Your task to perform on an android device: Show me productivity apps on the Play Store Image 0: 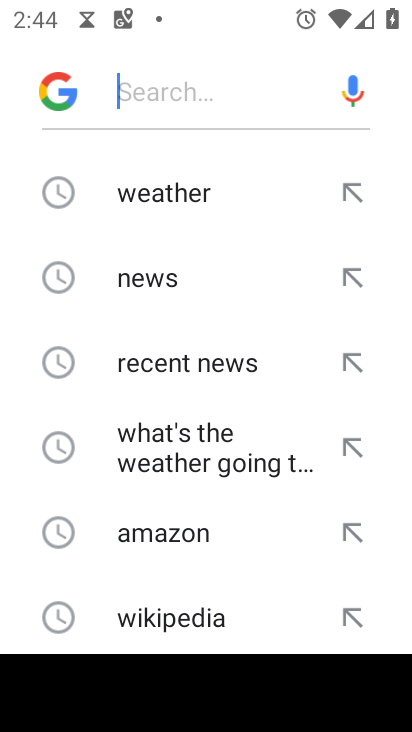
Step 0: press home button
Your task to perform on an android device: Show me productivity apps on the Play Store Image 1: 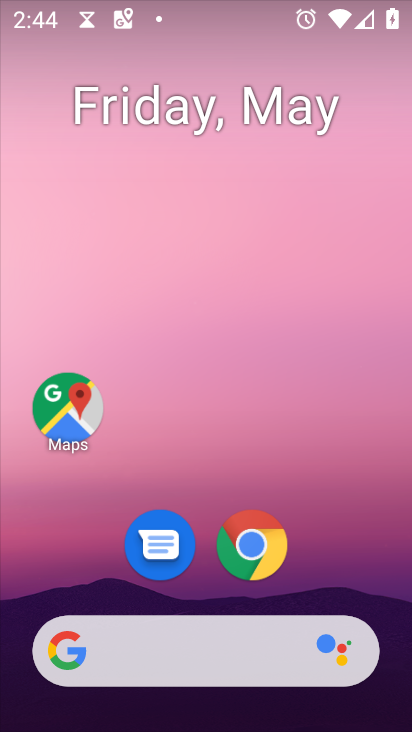
Step 1: drag from (341, 568) to (288, 62)
Your task to perform on an android device: Show me productivity apps on the Play Store Image 2: 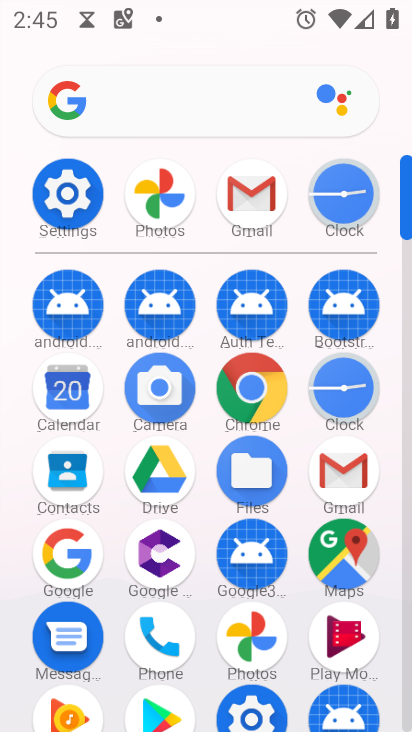
Step 2: click (156, 709)
Your task to perform on an android device: Show me productivity apps on the Play Store Image 3: 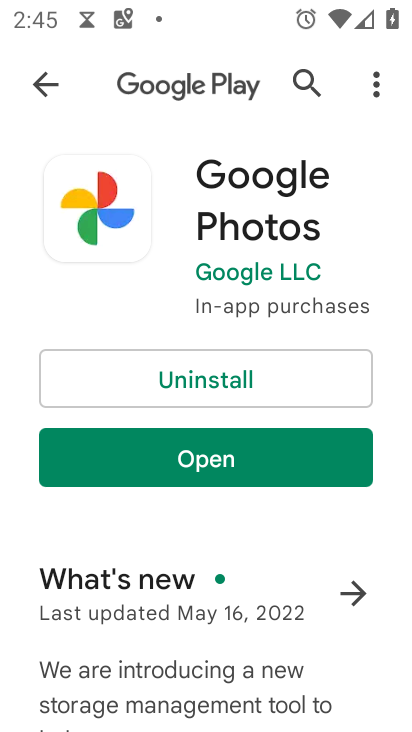
Step 3: click (245, 469)
Your task to perform on an android device: Show me productivity apps on the Play Store Image 4: 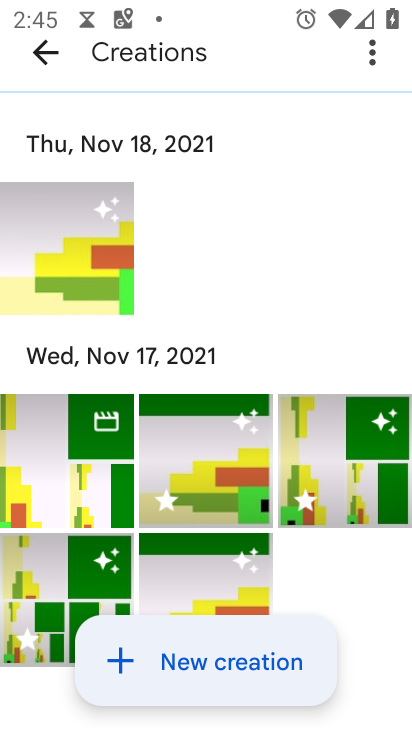
Step 4: press home button
Your task to perform on an android device: Show me productivity apps on the Play Store Image 5: 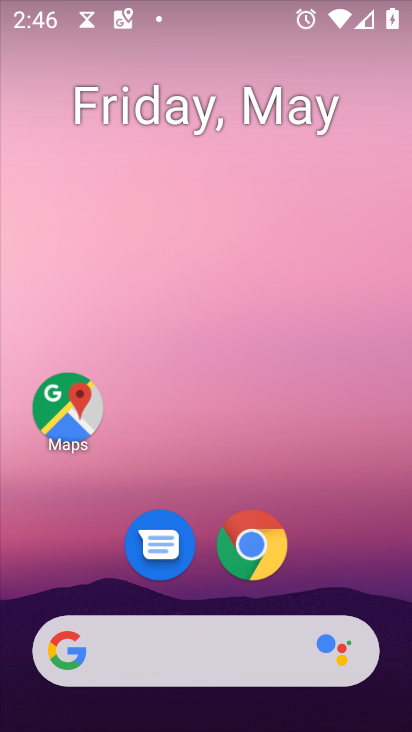
Step 5: drag from (345, 546) to (297, 132)
Your task to perform on an android device: Show me productivity apps on the Play Store Image 6: 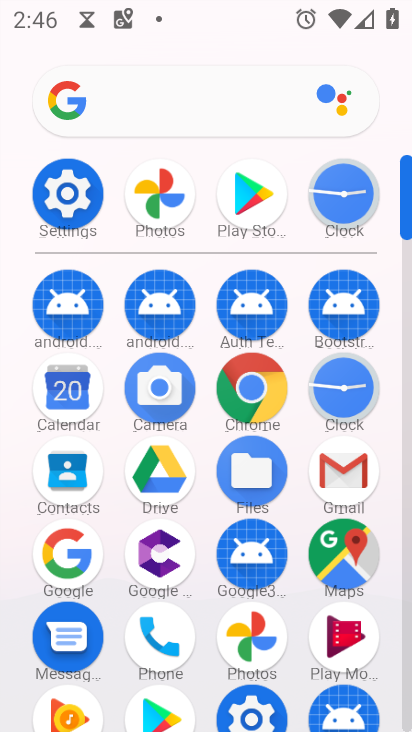
Step 6: click (166, 707)
Your task to perform on an android device: Show me productivity apps on the Play Store Image 7: 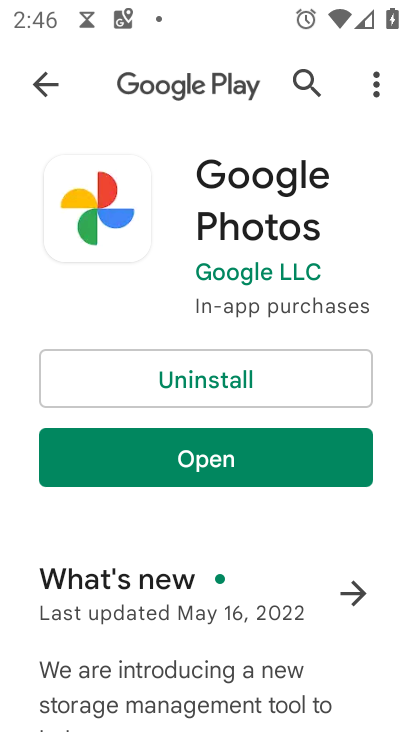
Step 7: click (242, 472)
Your task to perform on an android device: Show me productivity apps on the Play Store Image 8: 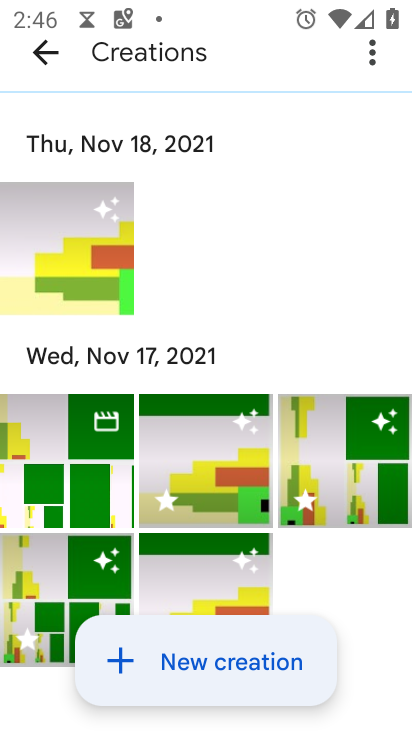
Step 8: press back button
Your task to perform on an android device: Show me productivity apps on the Play Store Image 9: 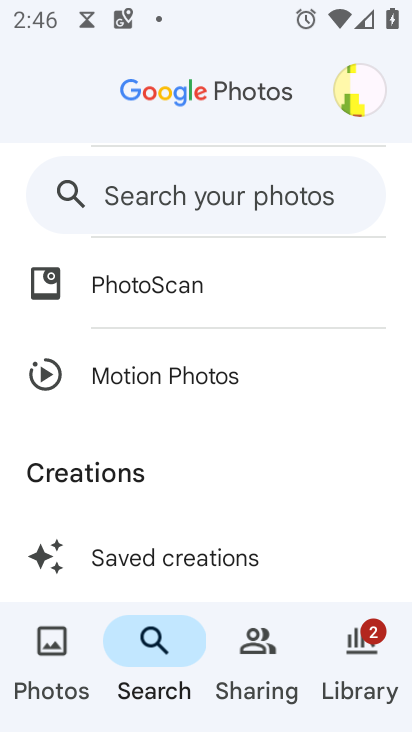
Step 9: press back button
Your task to perform on an android device: Show me productivity apps on the Play Store Image 10: 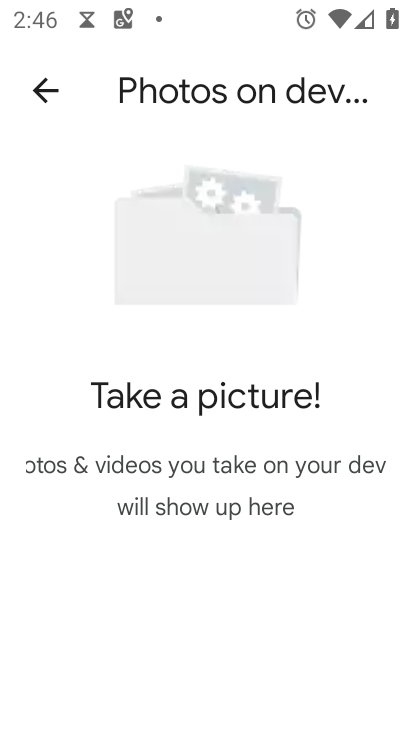
Step 10: press back button
Your task to perform on an android device: Show me productivity apps on the Play Store Image 11: 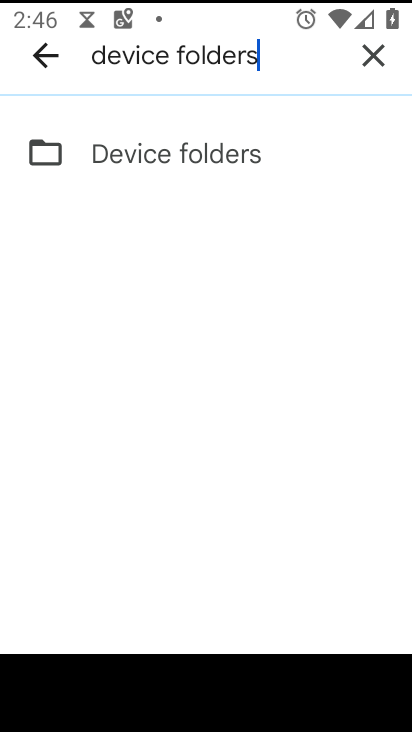
Step 11: press back button
Your task to perform on an android device: Show me productivity apps on the Play Store Image 12: 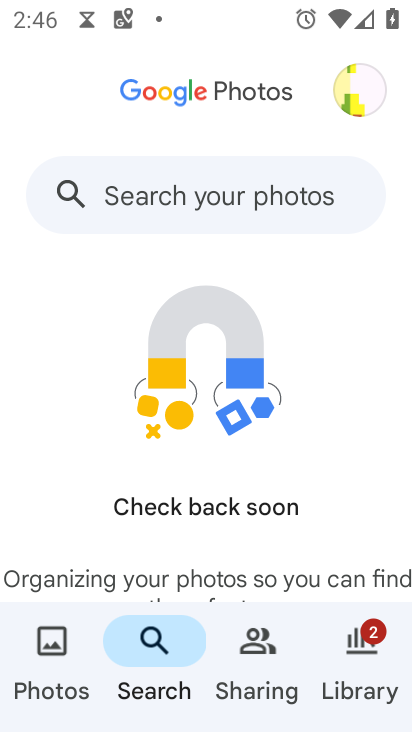
Step 12: press home button
Your task to perform on an android device: Show me productivity apps on the Play Store Image 13: 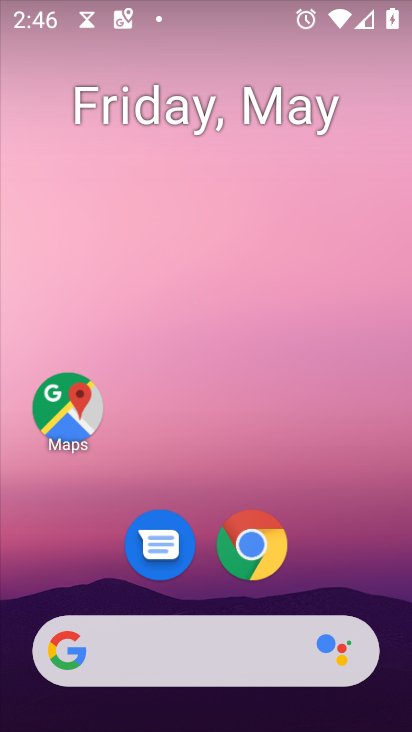
Step 13: drag from (318, 585) to (238, 203)
Your task to perform on an android device: Show me productivity apps on the Play Store Image 14: 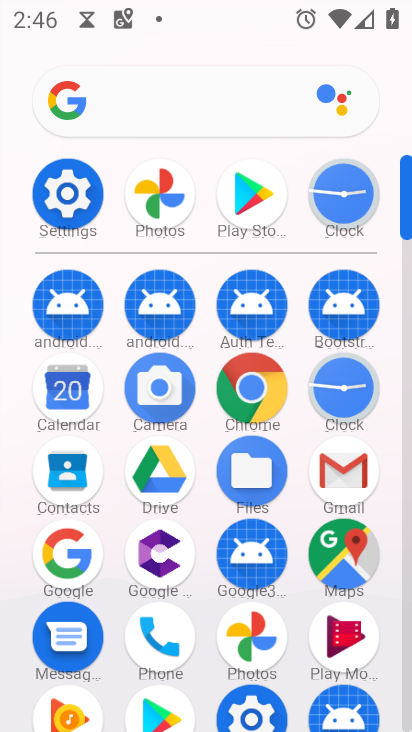
Step 14: click (151, 712)
Your task to perform on an android device: Show me productivity apps on the Play Store Image 15: 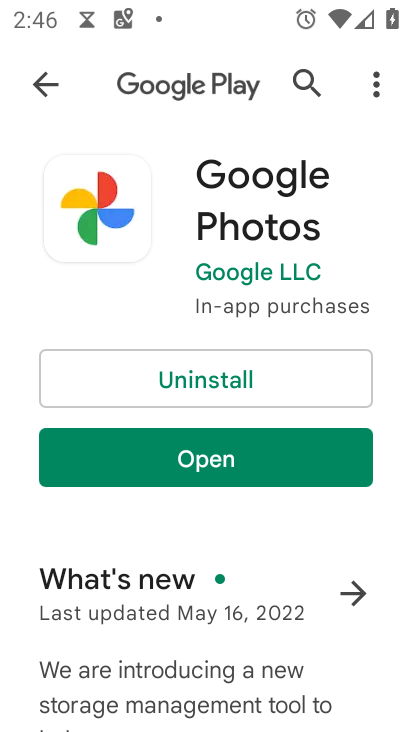
Step 15: click (47, 86)
Your task to perform on an android device: Show me productivity apps on the Play Store Image 16: 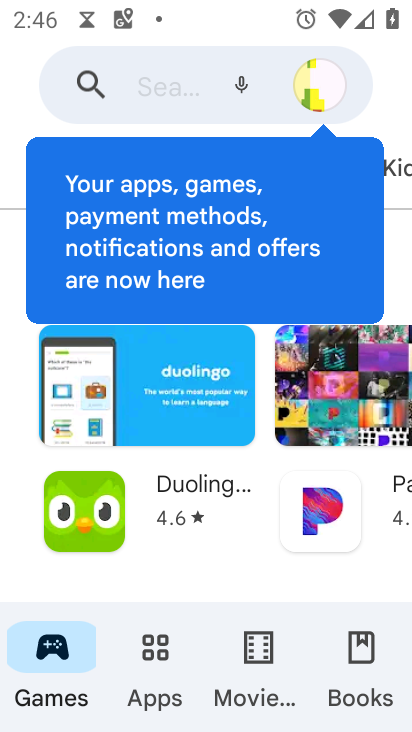
Step 16: click (183, 86)
Your task to perform on an android device: Show me productivity apps on the Play Store Image 17: 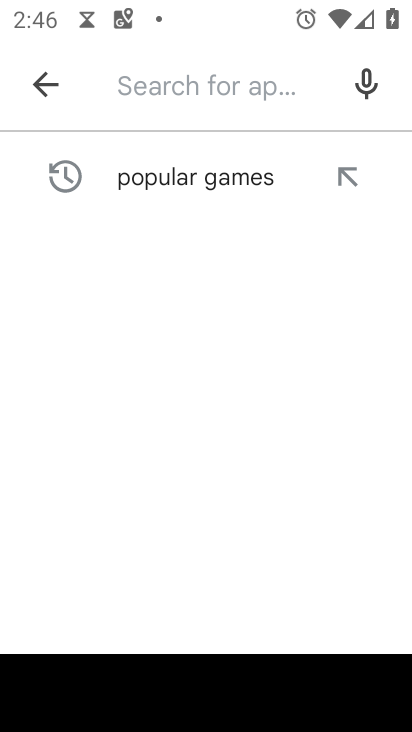
Step 17: type "productivity apps"
Your task to perform on an android device: Show me productivity apps on the Play Store Image 18: 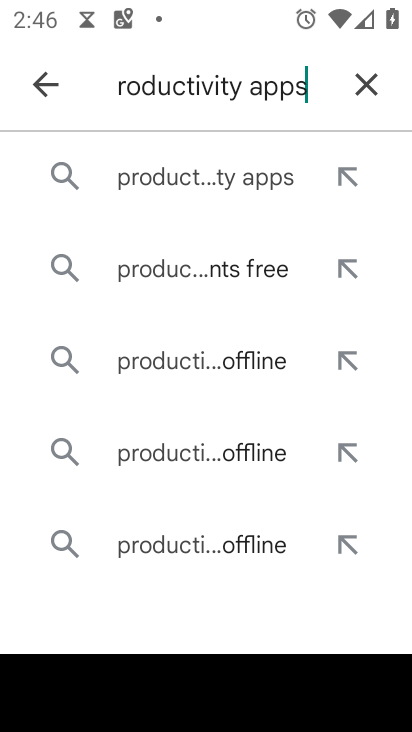
Step 18: click (256, 181)
Your task to perform on an android device: Show me productivity apps on the Play Store Image 19: 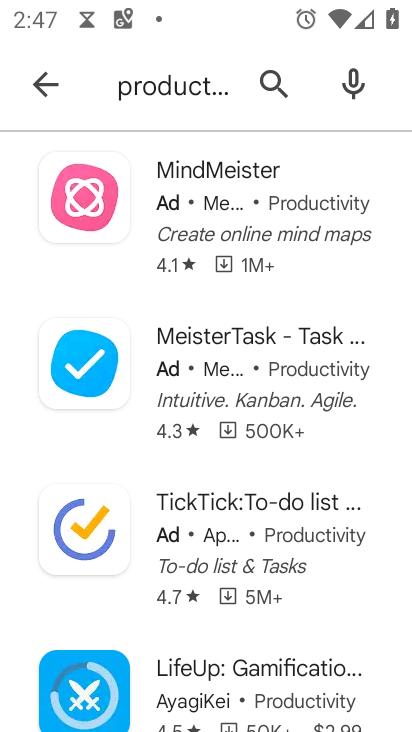
Step 19: task complete